Your task to perform on an android device: Show me popular games on the Play Store Image 0: 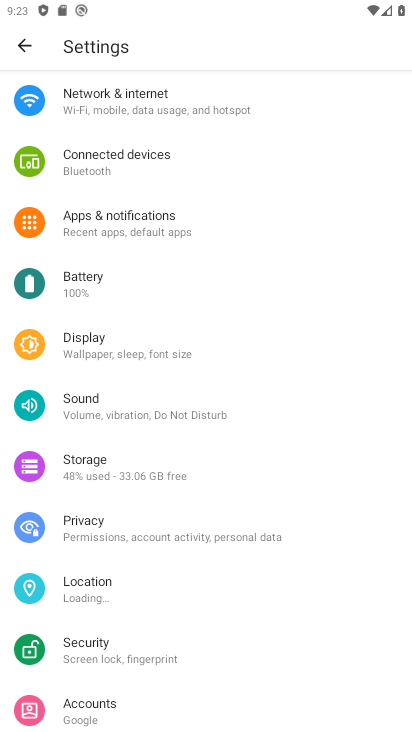
Step 0: press home button
Your task to perform on an android device: Show me popular games on the Play Store Image 1: 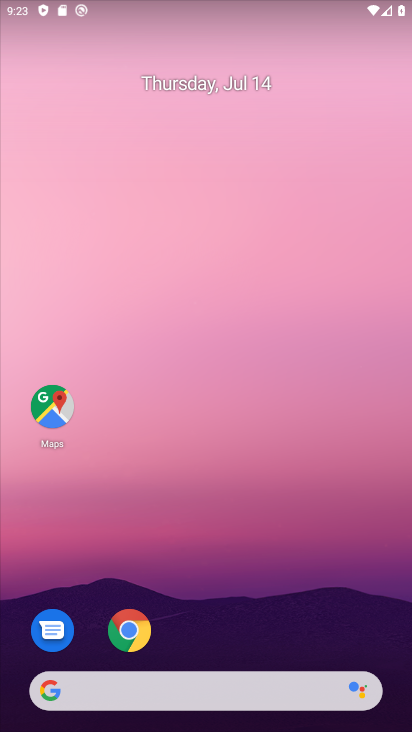
Step 1: drag from (233, 654) to (310, 146)
Your task to perform on an android device: Show me popular games on the Play Store Image 2: 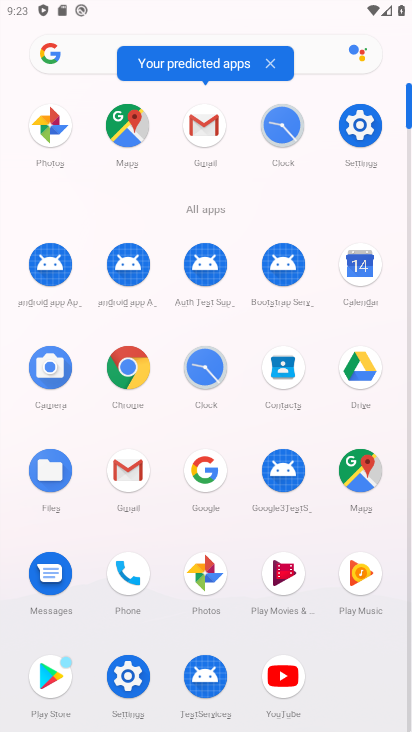
Step 2: click (60, 673)
Your task to perform on an android device: Show me popular games on the Play Store Image 3: 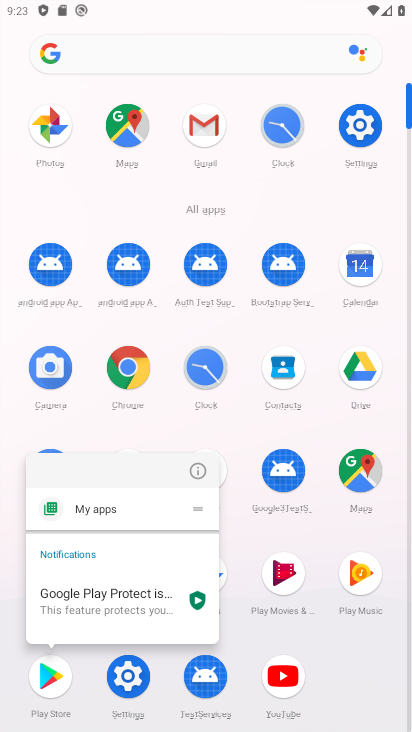
Step 3: click (58, 677)
Your task to perform on an android device: Show me popular games on the Play Store Image 4: 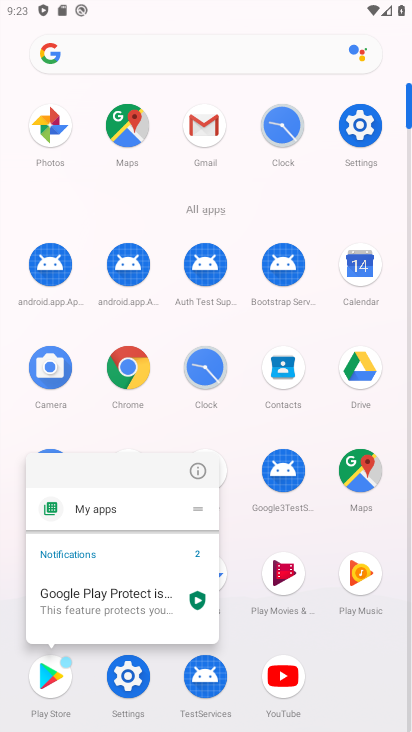
Step 4: click (58, 677)
Your task to perform on an android device: Show me popular games on the Play Store Image 5: 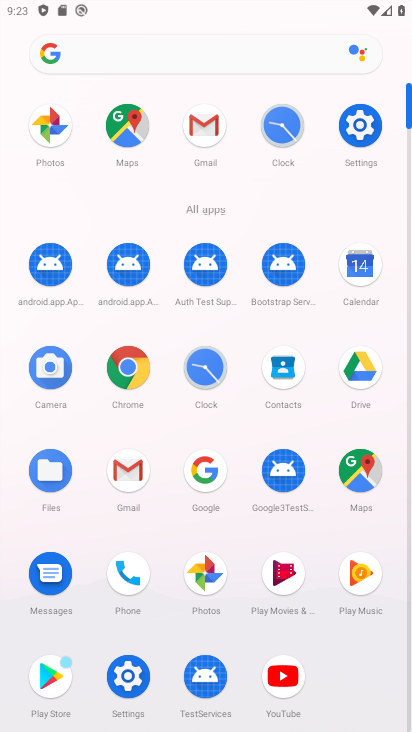
Step 5: click (58, 677)
Your task to perform on an android device: Show me popular games on the Play Store Image 6: 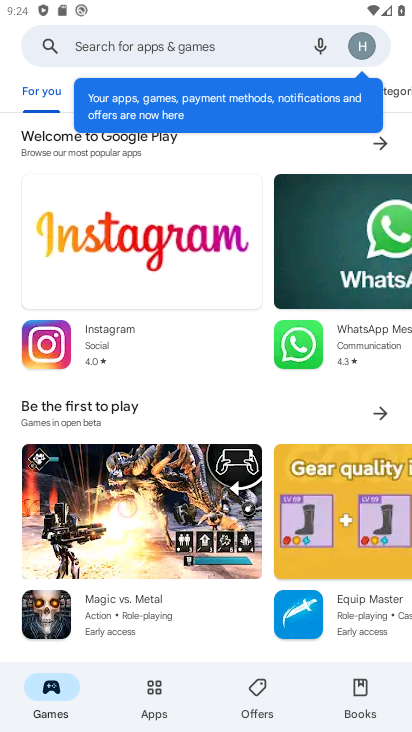
Step 6: drag from (154, 619) to (410, 19)
Your task to perform on an android device: Show me popular games on the Play Store Image 7: 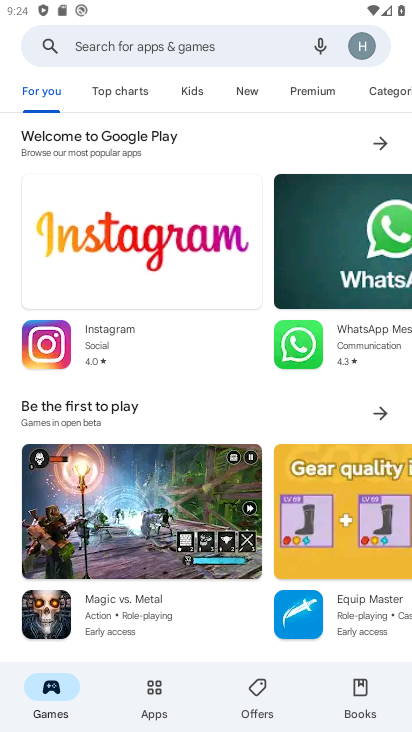
Step 7: drag from (148, 623) to (318, 45)
Your task to perform on an android device: Show me popular games on the Play Store Image 8: 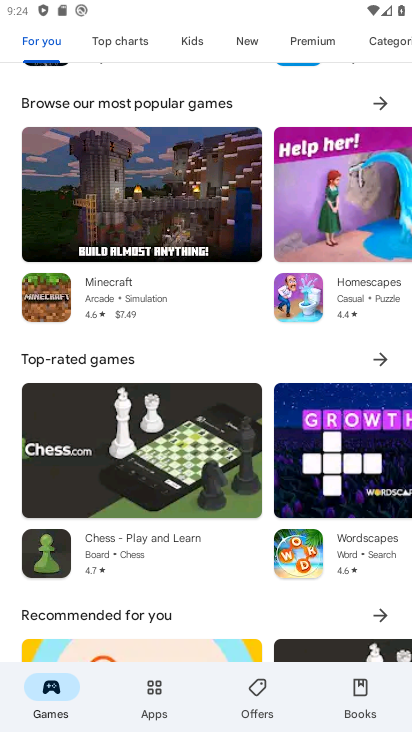
Step 8: drag from (185, 166) to (176, 394)
Your task to perform on an android device: Show me popular games on the Play Store Image 9: 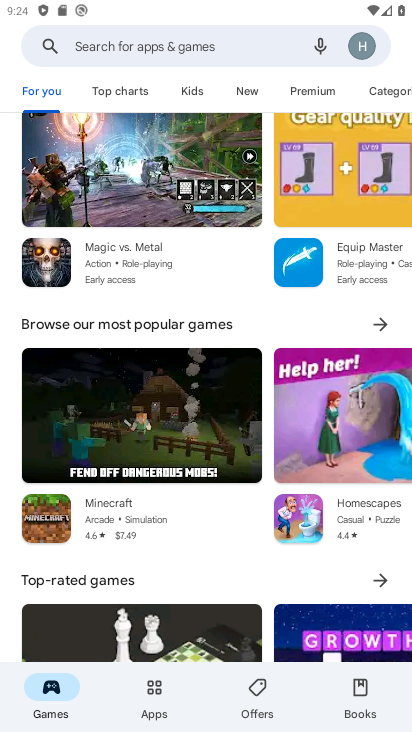
Step 9: click (376, 326)
Your task to perform on an android device: Show me popular games on the Play Store Image 10: 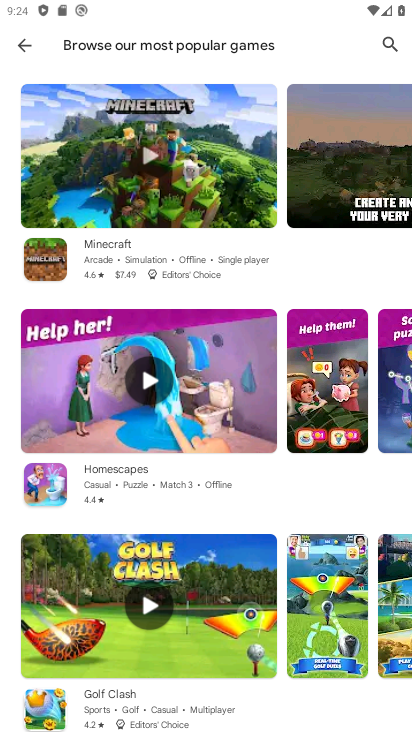
Step 10: task complete